Your task to perform on an android device: open the mobile data screen to see how much data has been used Image 0: 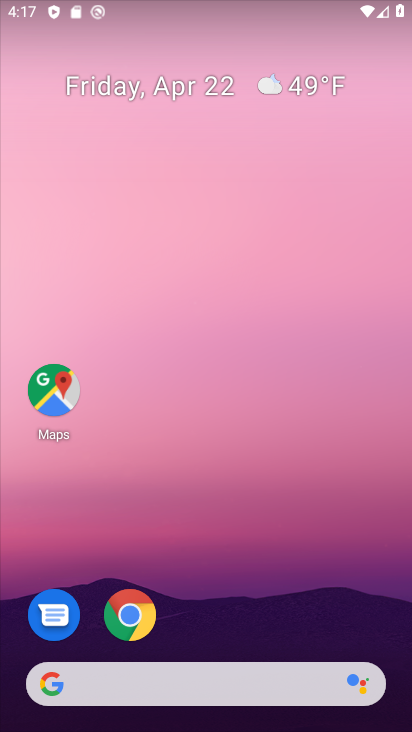
Step 0: drag from (216, 623) to (228, 134)
Your task to perform on an android device: open the mobile data screen to see how much data has been used Image 1: 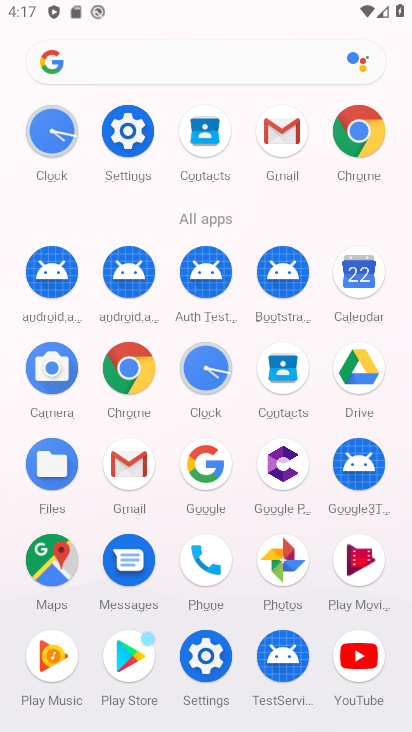
Step 1: click (137, 132)
Your task to perform on an android device: open the mobile data screen to see how much data has been used Image 2: 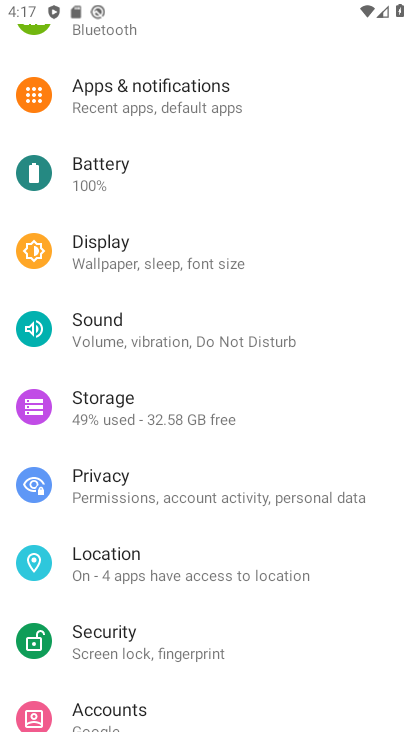
Step 2: drag from (236, 174) to (227, 463)
Your task to perform on an android device: open the mobile data screen to see how much data has been used Image 3: 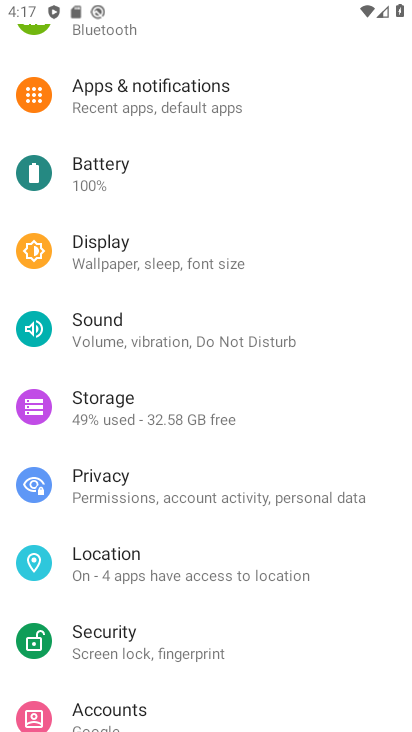
Step 3: drag from (208, 158) to (214, 678)
Your task to perform on an android device: open the mobile data screen to see how much data has been used Image 4: 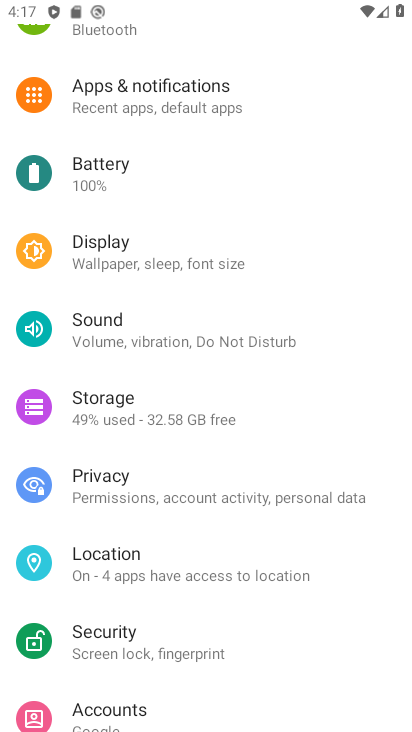
Step 4: drag from (180, 191) to (183, 652)
Your task to perform on an android device: open the mobile data screen to see how much data has been used Image 5: 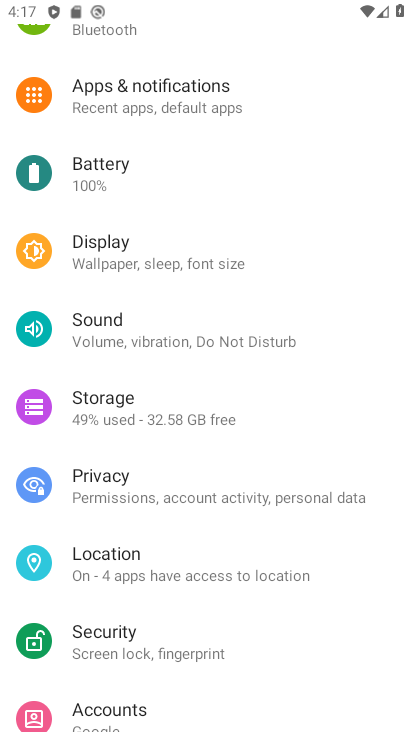
Step 5: drag from (229, 93) to (238, 663)
Your task to perform on an android device: open the mobile data screen to see how much data has been used Image 6: 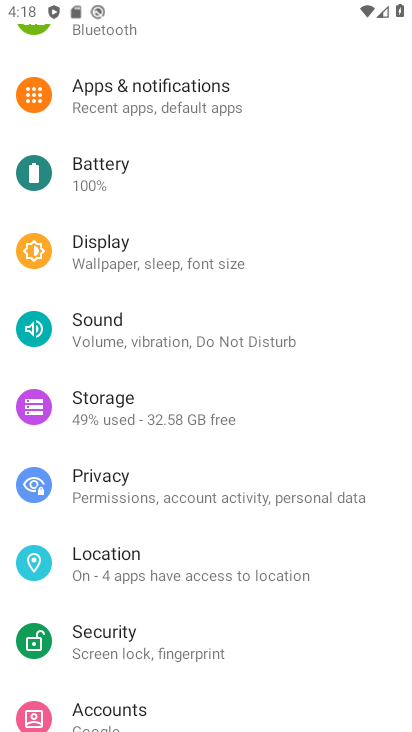
Step 6: drag from (191, 238) to (187, 680)
Your task to perform on an android device: open the mobile data screen to see how much data has been used Image 7: 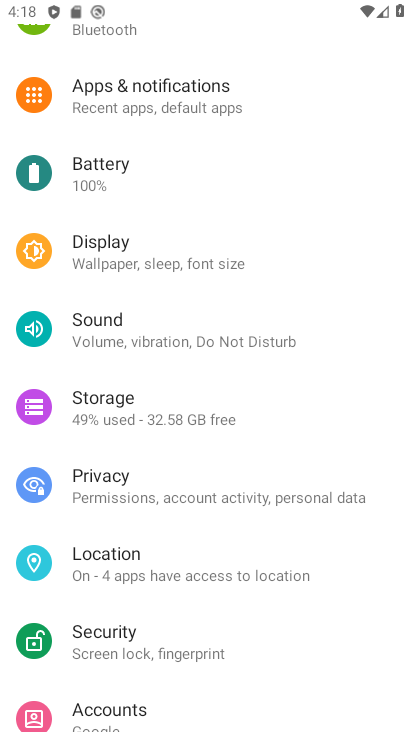
Step 7: drag from (167, 154) to (187, 615)
Your task to perform on an android device: open the mobile data screen to see how much data has been used Image 8: 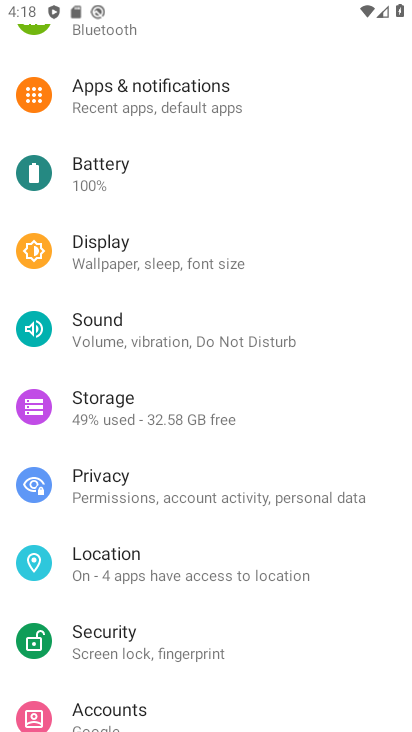
Step 8: drag from (246, 197) to (234, 569)
Your task to perform on an android device: open the mobile data screen to see how much data has been used Image 9: 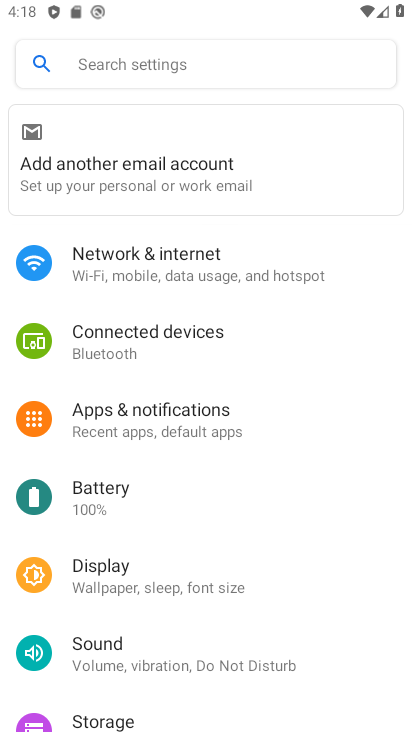
Step 9: drag from (168, 200) to (168, 497)
Your task to perform on an android device: open the mobile data screen to see how much data has been used Image 10: 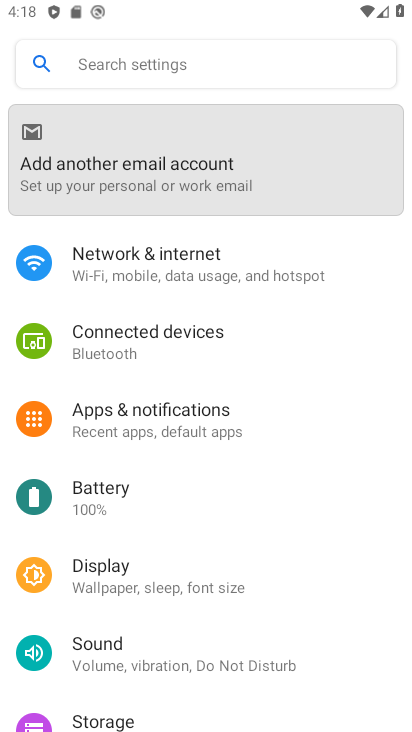
Step 10: click (147, 268)
Your task to perform on an android device: open the mobile data screen to see how much data has been used Image 11: 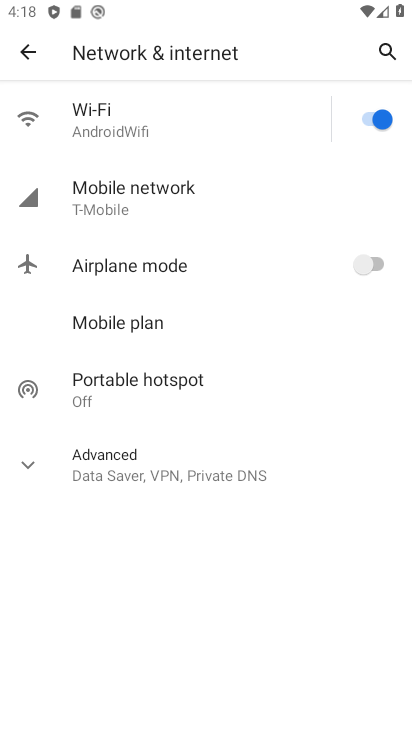
Step 11: click (150, 207)
Your task to perform on an android device: open the mobile data screen to see how much data has been used Image 12: 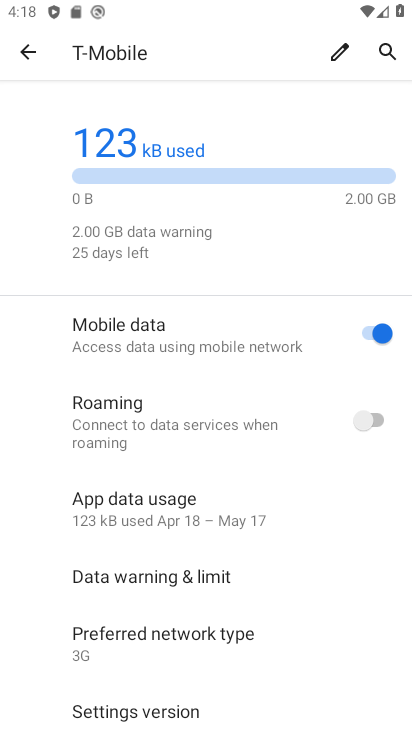
Step 12: click (138, 513)
Your task to perform on an android device: open the mobile data screen to see how much data has been used Image 13: 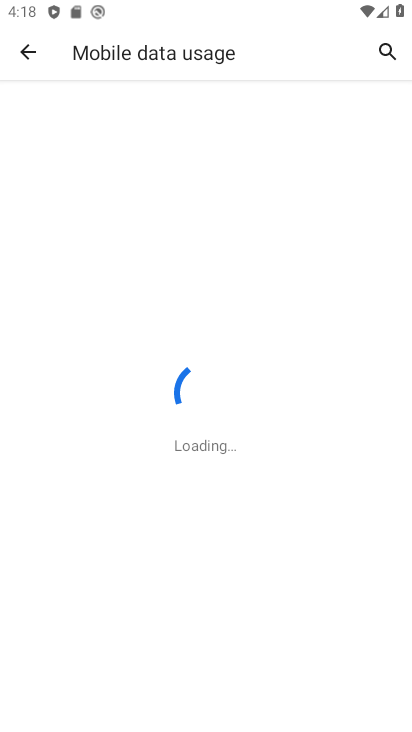
Step 13: task complete